Your task to perform on an android device: turn on translation in the chrome app Image 0: 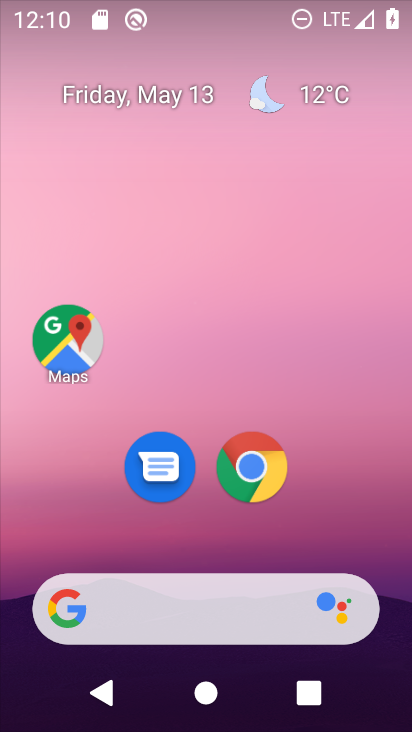
Step 0: drag from (317, 505) to (244, 4)
Your task to perform on an android device: turn on translation in the chrome app Image 1: 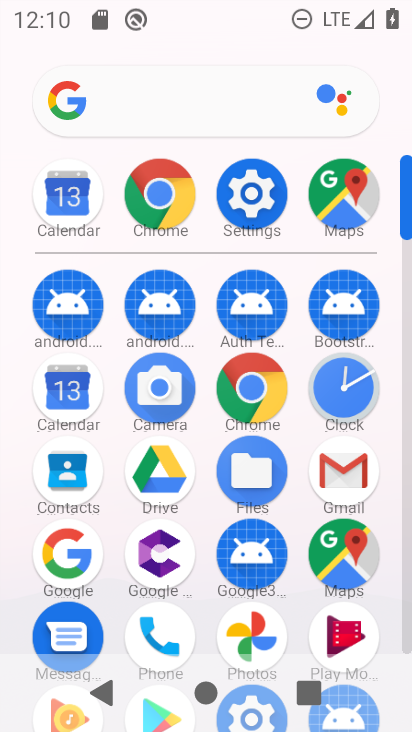
Step 1: drag from (7, 534) to (3, 300)
Your task to perform on an android device: turn on translation in the chrome app Image 2: 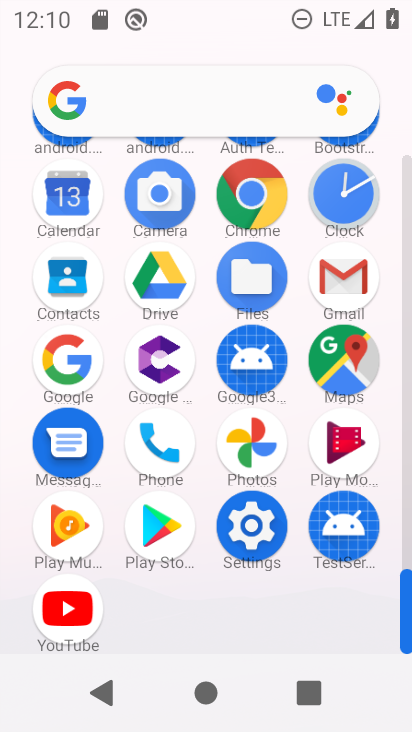
Step 2: click (250, 194)
Your task to perform on an android device: turn on translation in the chrome app Image 3: 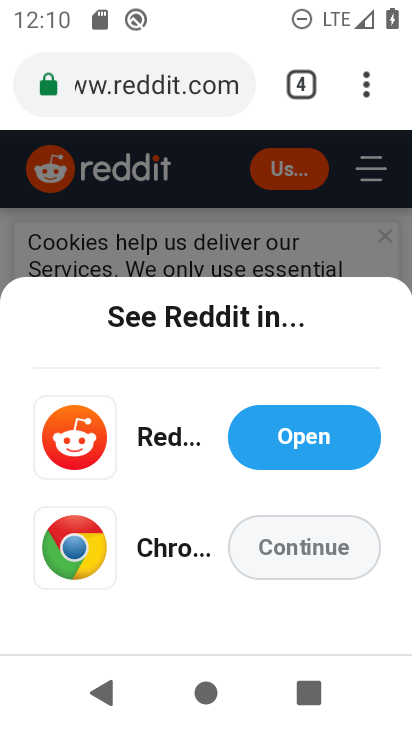
Step 3: drag from (365, 80) to (111, 520)
Your task to perform on an android device: turn on translation in the chrome app Image 4: 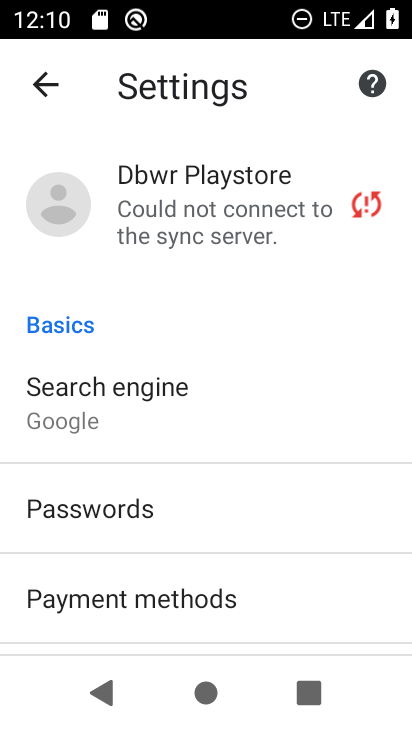
Step 4: drag from (210, 482) to (209, 231)
Your task to perform on an android device: turn on translation in the chrome app Image 5: 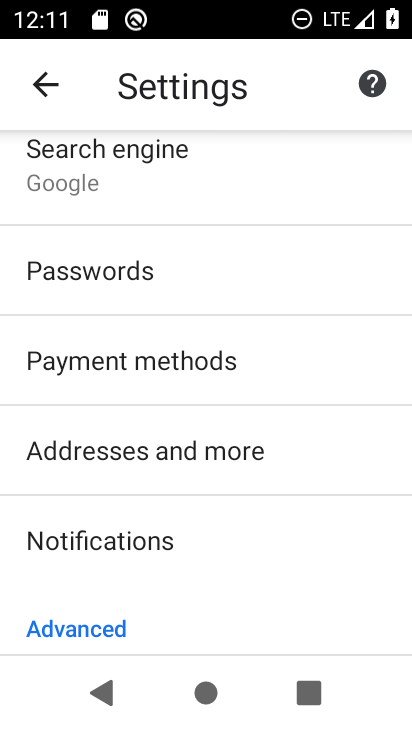
Step 5: drag from (244, 553) to (269, 147)
Your task to perform on an android device: turn on translation in the chrome app Image 6: 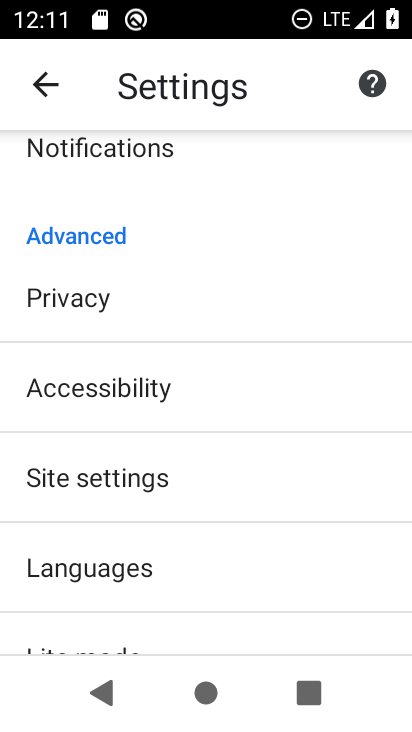
Step 6: drag from (242, 567) to (243, 196)
Your task to perform on an android device: turn on translation in the chrome app Image 7: 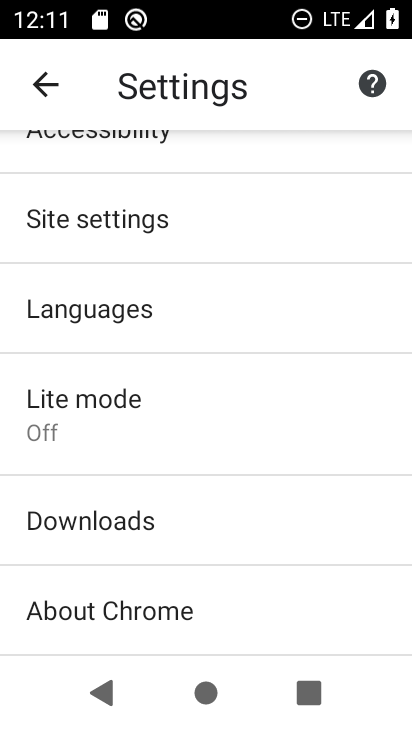
Step 7: click (175, 319)
Your task to perform on an android device: turn on translation in the chrome app Image 8: 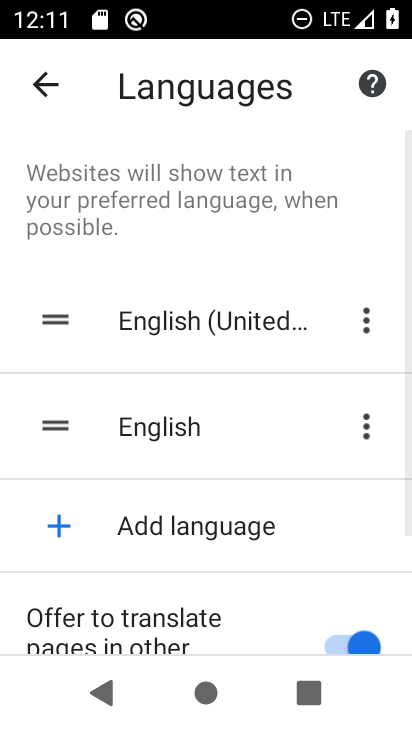
Step 8: task complete